Your task to perform on an android device: toggle show notifications on the lock screen Image 0: 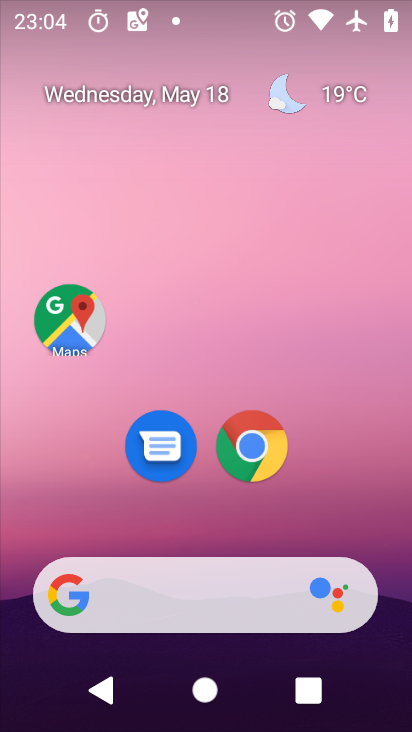
Step 0: press home button
Your task to perform on an android device: toggle show notifications on the lock screen Image 1: 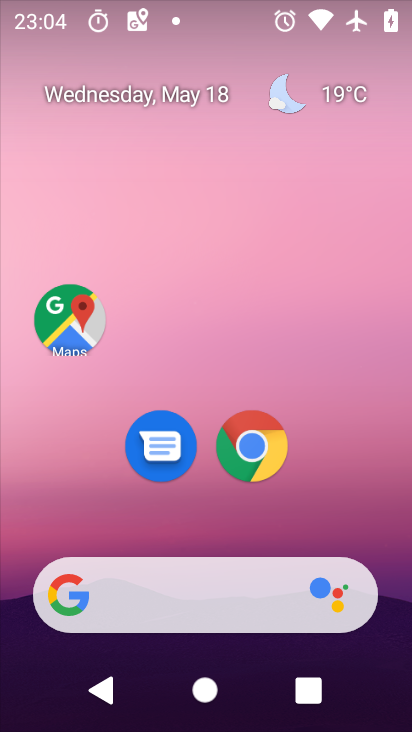
Step 1: drag from (158, 592) to (344, 84)
Your task to perform on an android device: toggle show notifications on the lock screen Image 2: 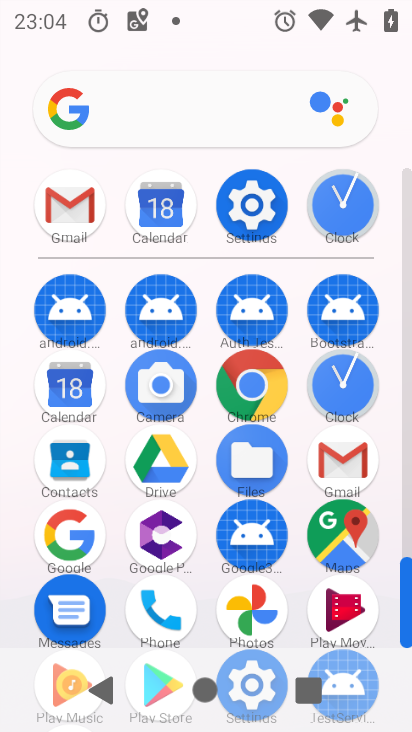
Step 2: click (252, 204)
Your task to perform on an android device: toggle show notifications on the lock screen Image 3: 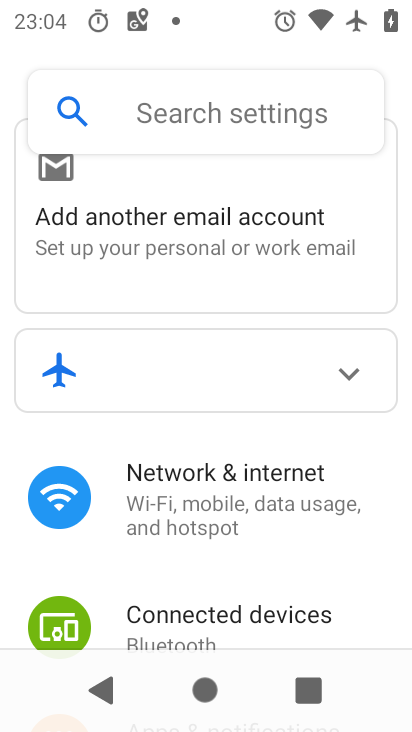
Step 3: drag from (227, 566) to (374, 126)
Your task to perform on an android device: toggle show notifications on the lock screen Image 4: 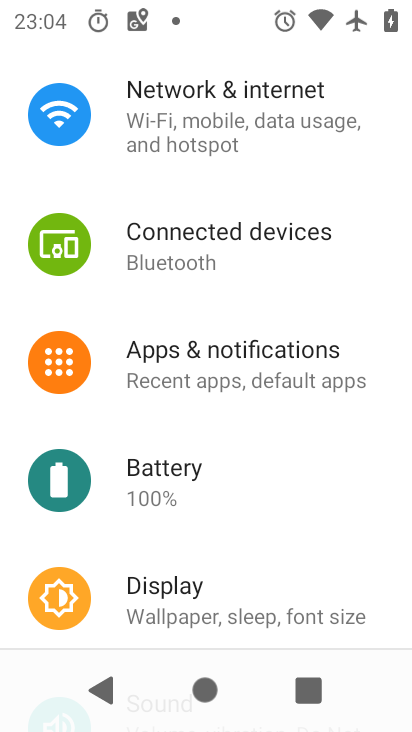
Step 4: click (276, 352)
Your task to perform on an android device: toggle show notifications on the lock screen Image 5: 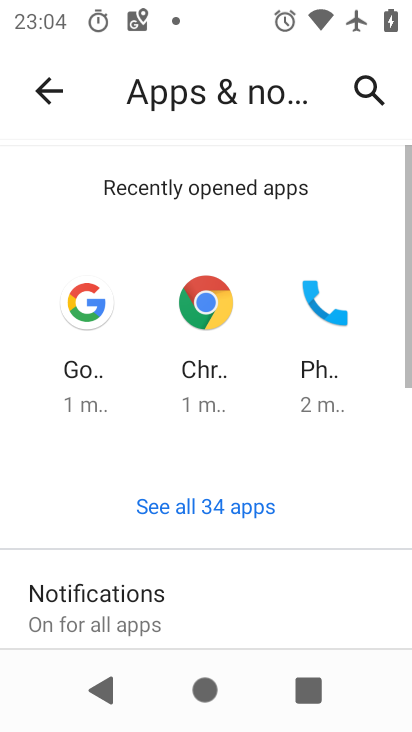
Step 5: click (125, 607)
Your task to perform on an android device: toggle show notifications on the lock screen Image 6: 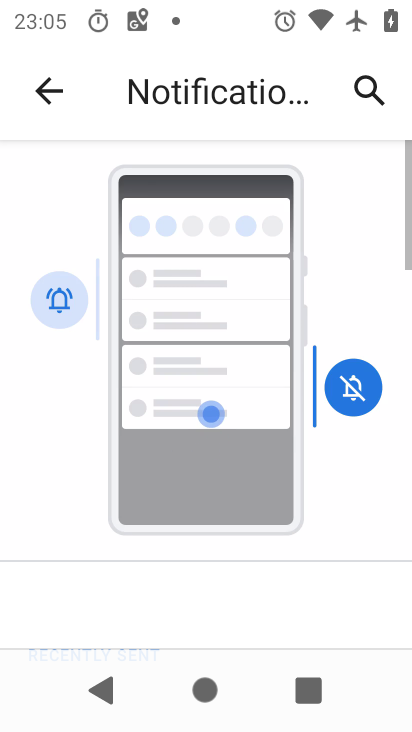
Step 6: drag from (223, 604) to (385, 104)
Your task to perform on an android device: toggle show notifications on the lock screen Image 7: 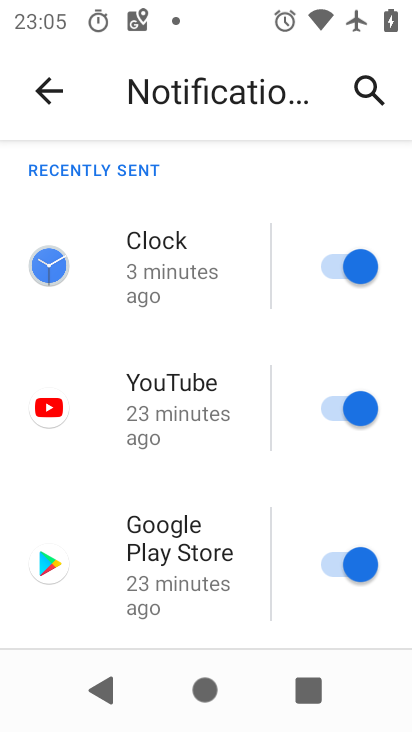
Step 7: drag from (234, 606) to (300, 393)
Your task to perform on an android device: toggle show notifications on the lock screen Image 8: 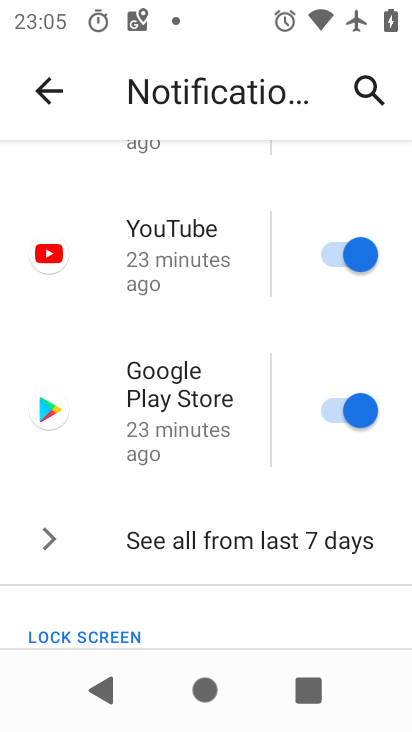
Step 8: drag from (186, 569) to (412, 127)
Your task to perform on an android device: toggle show notifications on the lock screen Image 9: 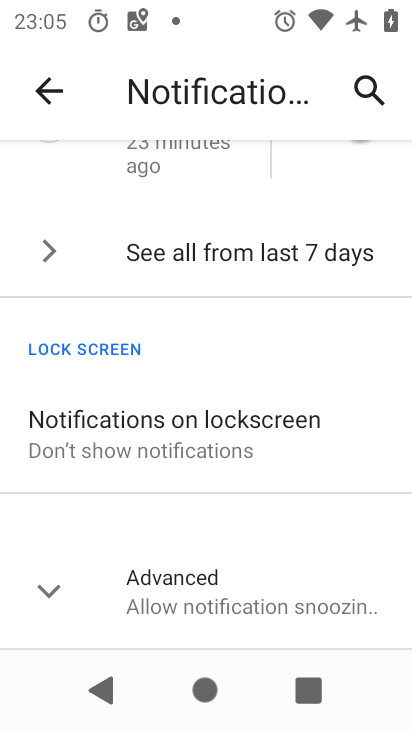
Step 9: click (156, 431)
Your task to perform on an android device: toggle show notifications on the lock screen Image 10: 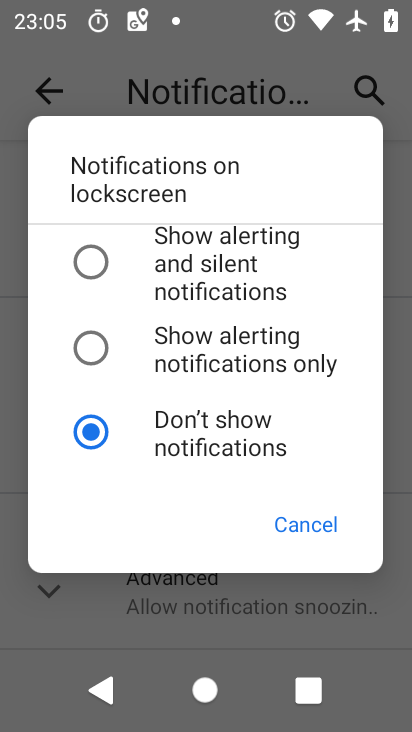
Step 10: click (95, 258)
Your task to perform on an android device: toggle show notifications on the lock screen Image 11: 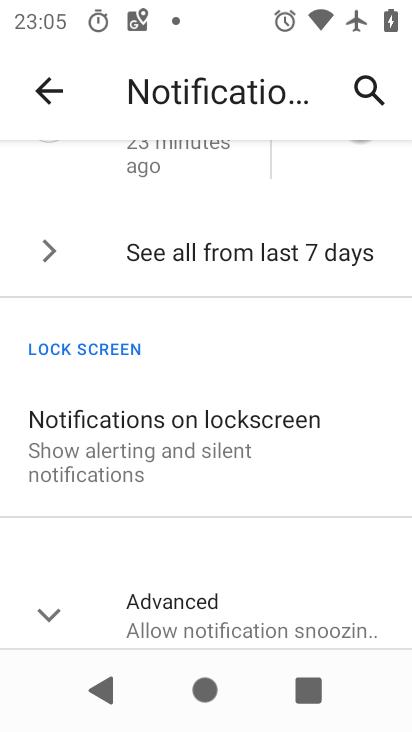
Step 11: task complete